Your task to perform on an android device: open app "Fetch Rewards" (install if not already installed) Image 0: 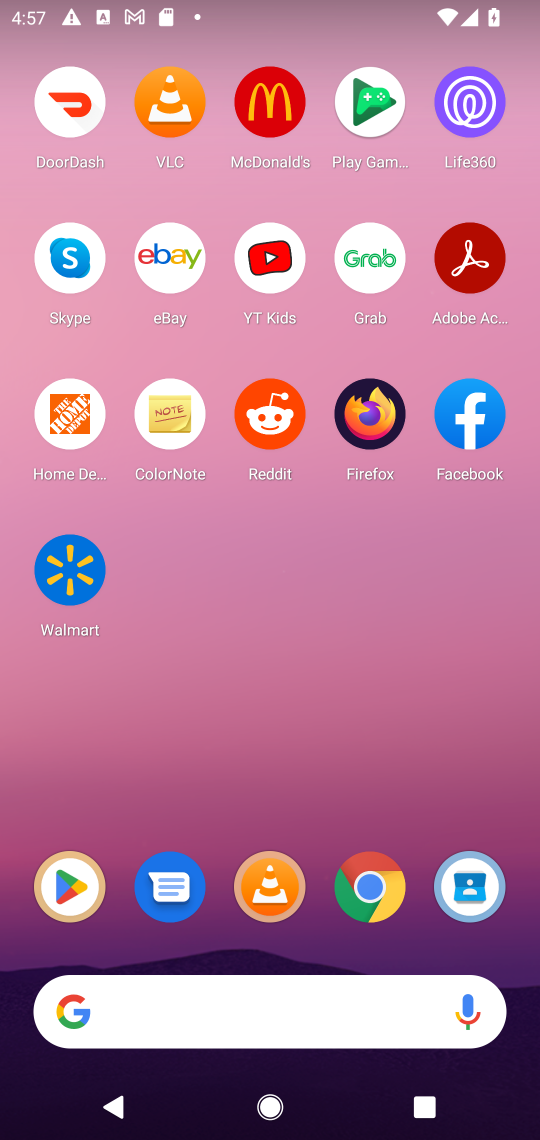
Step 0: click (64, 900)
Your task to perform on an android device: open app "Fetch Rewards" (install if not already installed) Image 1: 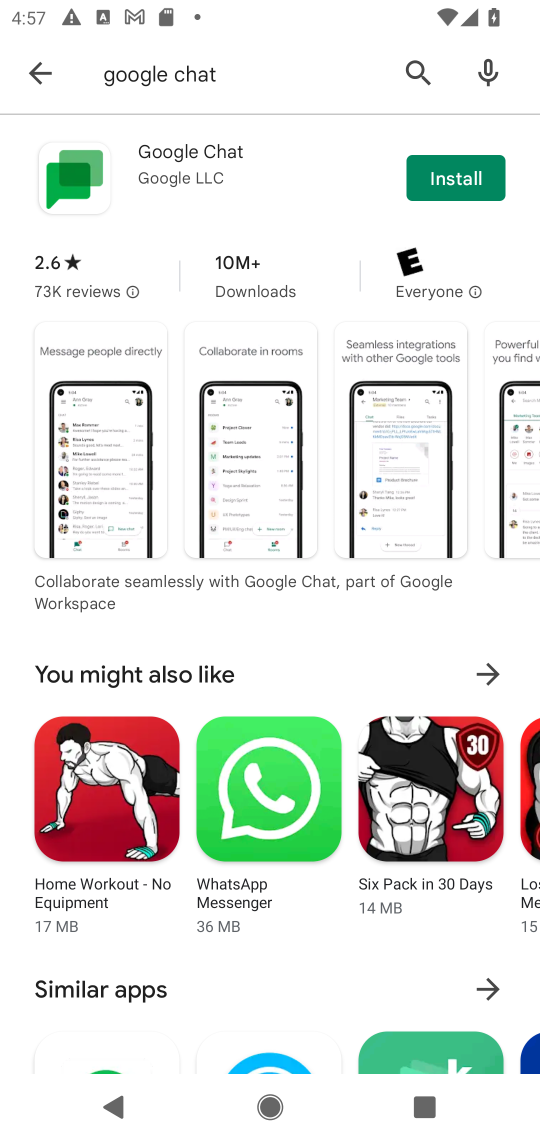
Step 1: click (225, 89)
Your task to perform on an android device: open app "Fetch Rewards" (install if not already installed) Image 2: 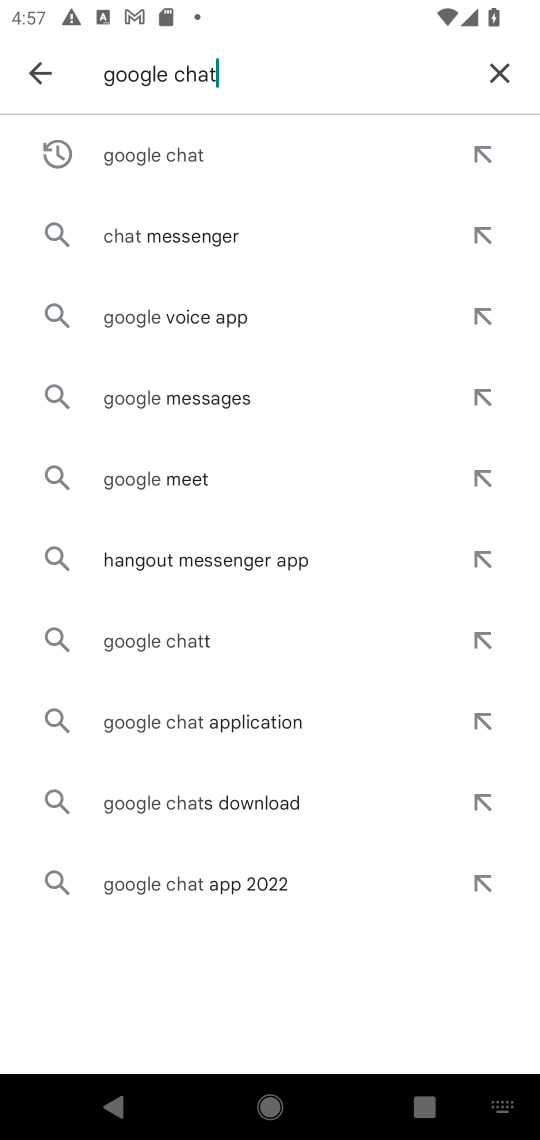
Step 2: click (500, 76)
Your task to perform on an android device: open app "Fetch Rewards" (install if not already installed) Image 3: 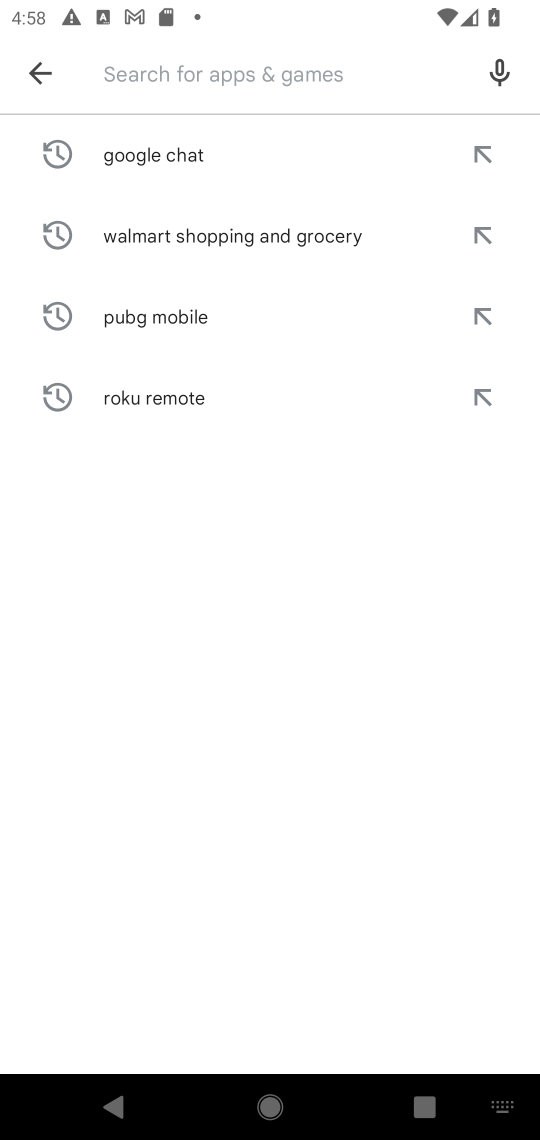
Step 3: type "fetch Rewards"
Your task to perform on an android device: open app "Fetch Rewards" (install if not already installed) Image 4: 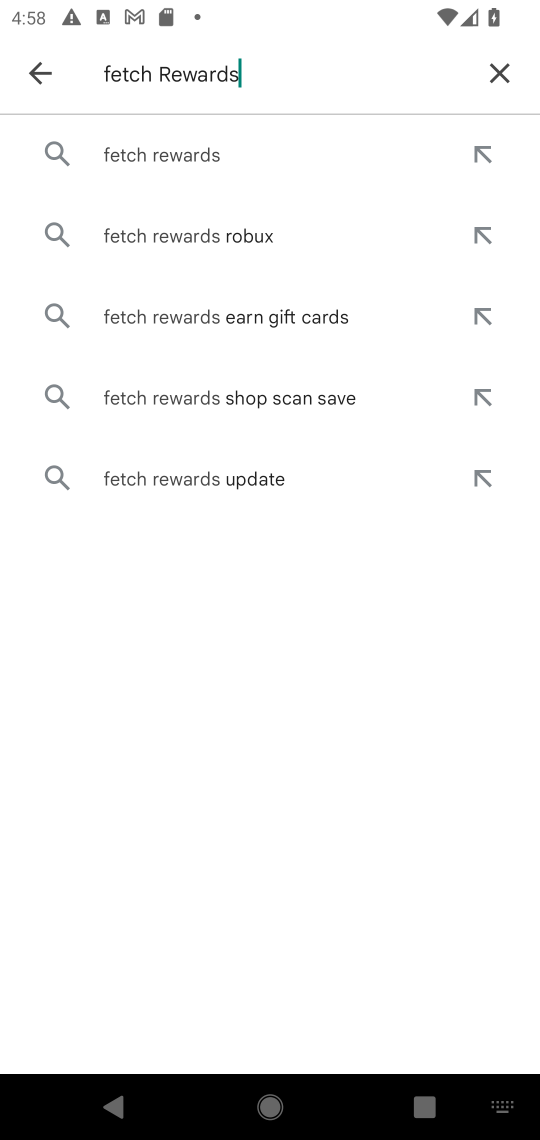
Step 4: click (214, 145)
Your task to perform on an android device: open app "Fetch Rewards" (install if not already installed) Image 5: 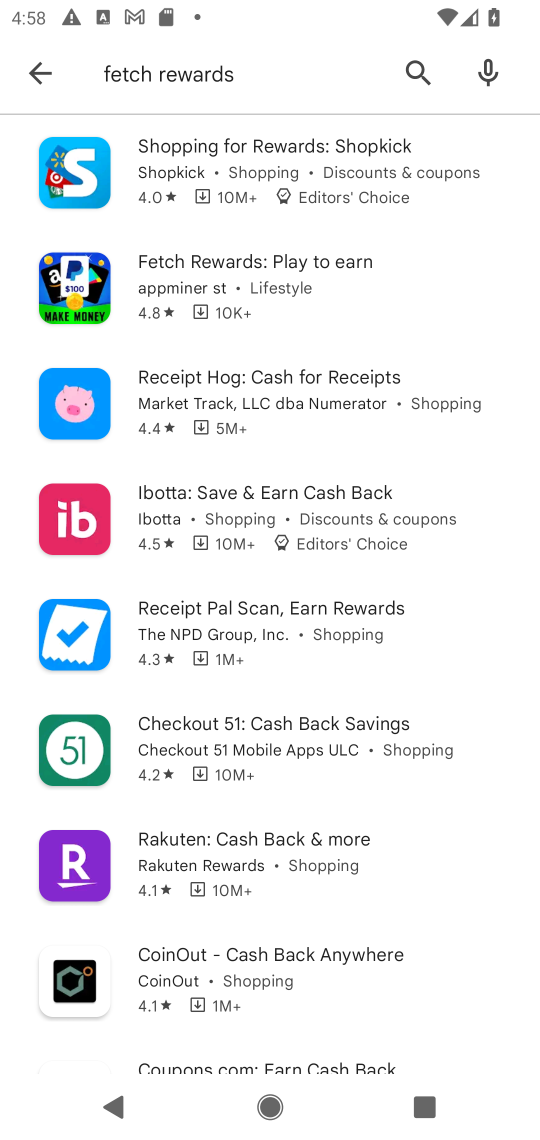
Step 5: click (261, 288)
Your task to perform on an android device: open app "Fetch Rewards" (install if not already installed) Image 6: 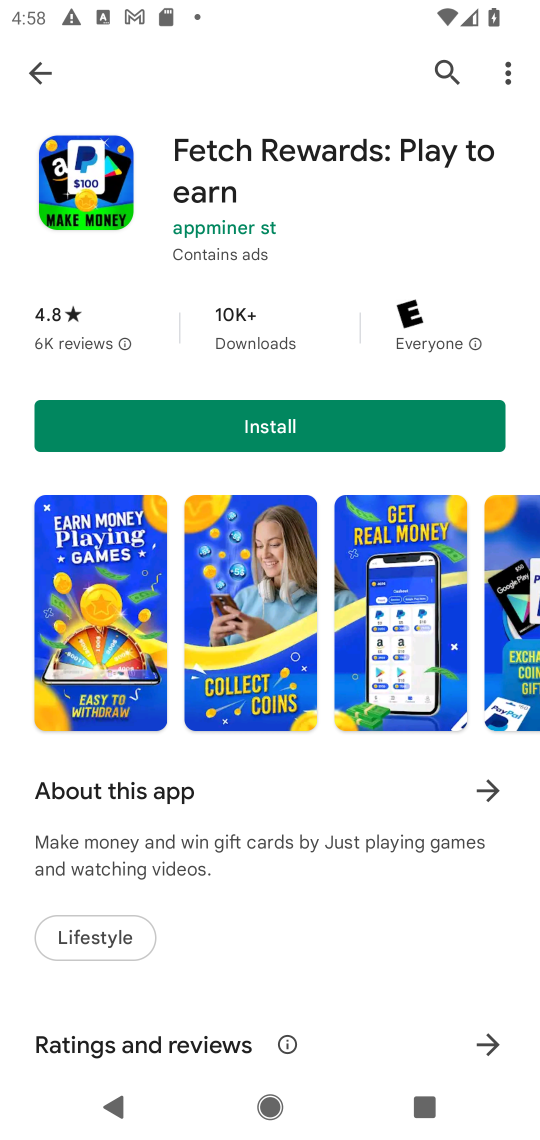
Step 6: click (299, 426)
Your task to perform on an android device: open app "Fetch Rewards" (install if not already installed) Image 7: 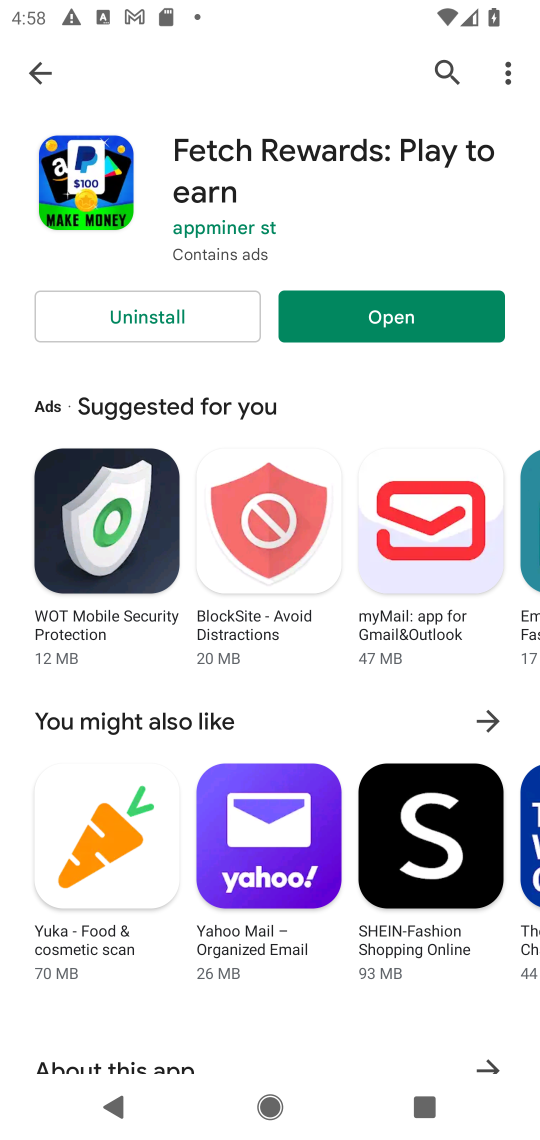
Step 7: click (414, 308)
Your task to perform on an android device: open app "Fetch Rewards" (install if not already installed) Image 8: 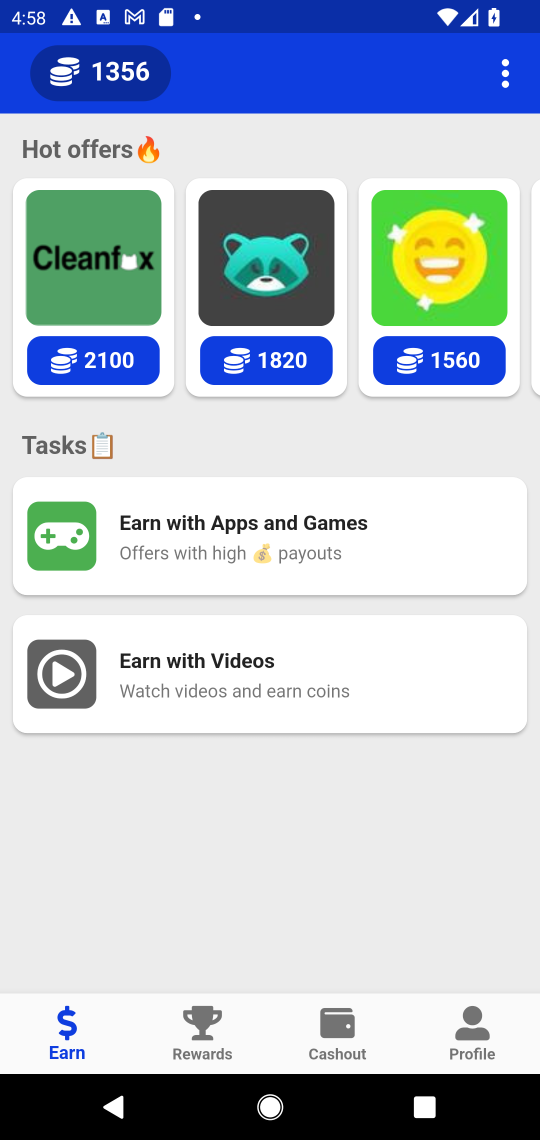
Step 8: task complete